Your task to perform on an android device: Open privacy settings Image 0: 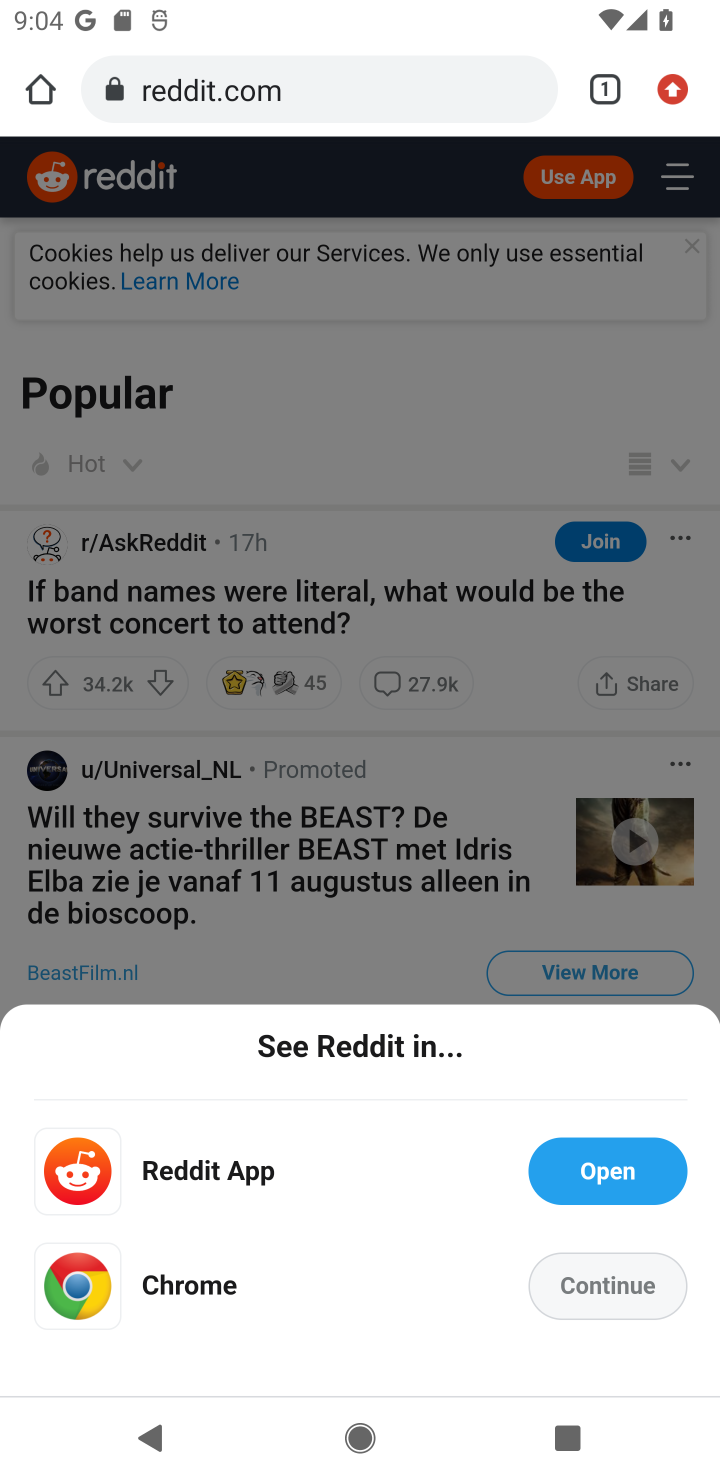
Step 0: task complete